Your task to perform on an android device: Search for Mexican restaurants on Maps Image 0: 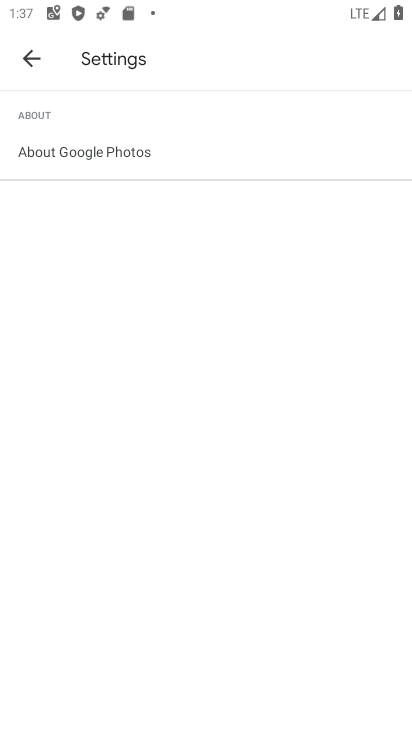
Step 0: press home button
Your task to perform on an android device: Search for Mexican restaurants on Maps Image 1: 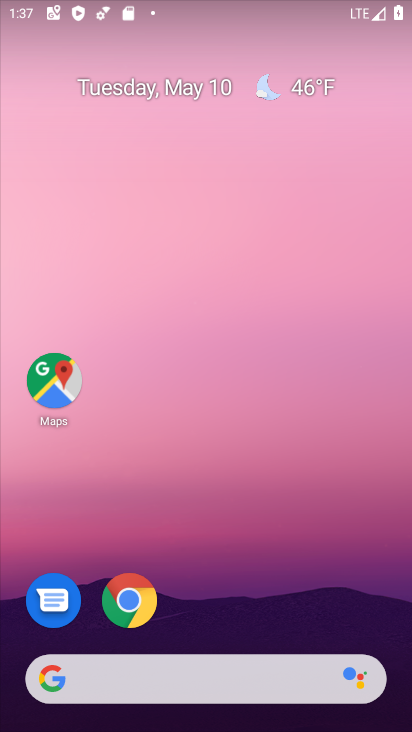
Step 1: click (48, 393)
Your task to perform on an android device: Search for Mexican restaurants on Maps Image 2: 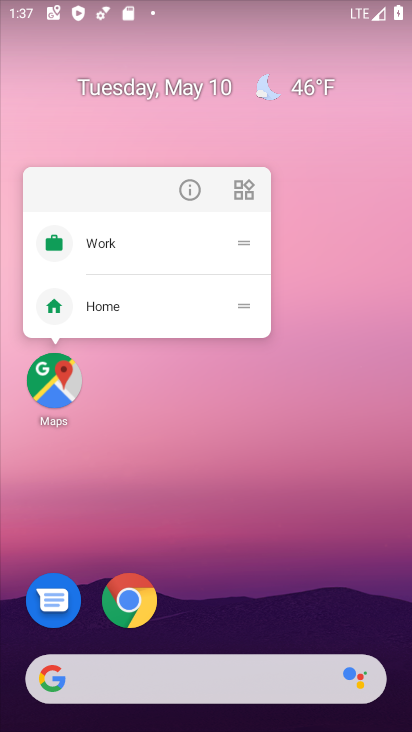
Step 2: click (56, 394)
Your task to perform on an android device: Search for Mexican restaurants on Maps Image 3: 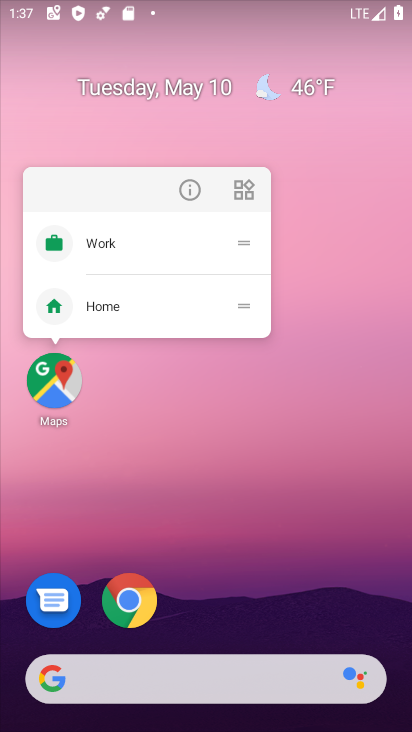
Step 3: click (57, 394)
Your task to perform on an android device: Search for Mexican restaurants on Maps Image 4: 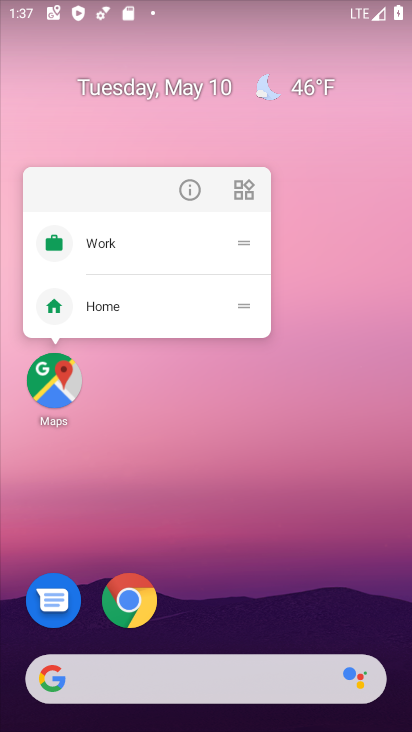
Step 4: click (57, 386)
Your task to perform on an android device: Search for Mexican restaurants on Maps Image 5: 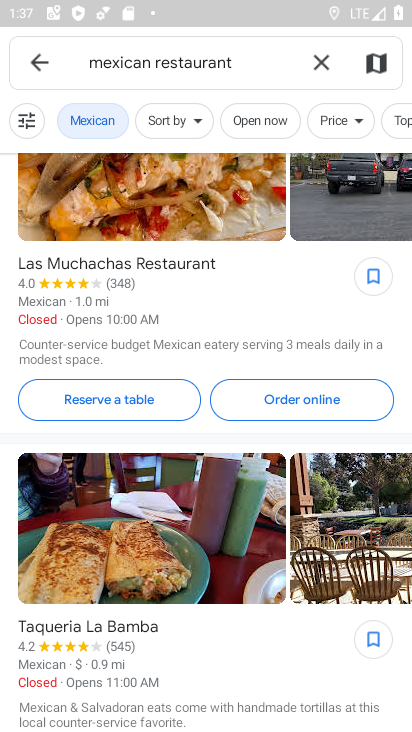
Step 5: task complete